Your task to perform on an android device: Open Chrome and go to settings Image 0: 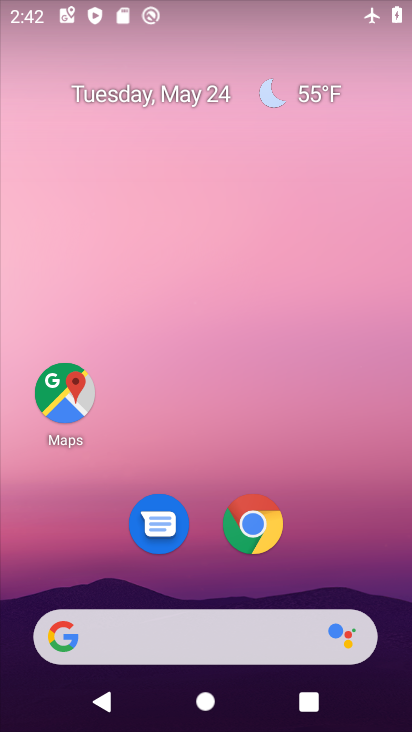
Step 0: click (258, 524)
Your task to perform on an android device: Open Chrome and go to settings Image 1: 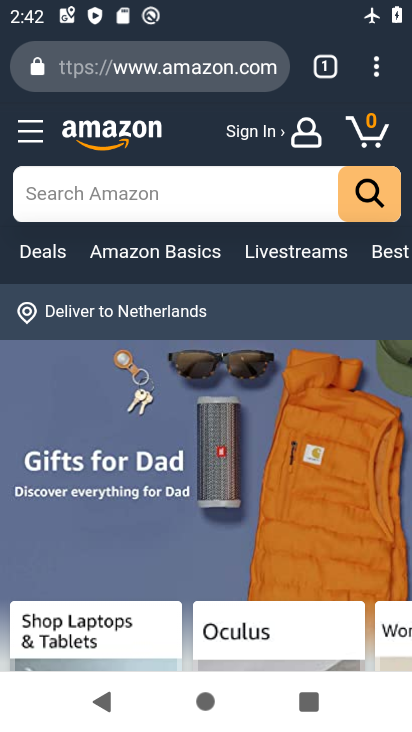
Step 1: click (375, 74)
Your task to perform on an android device: Open Chrome and go to settings Image 2: 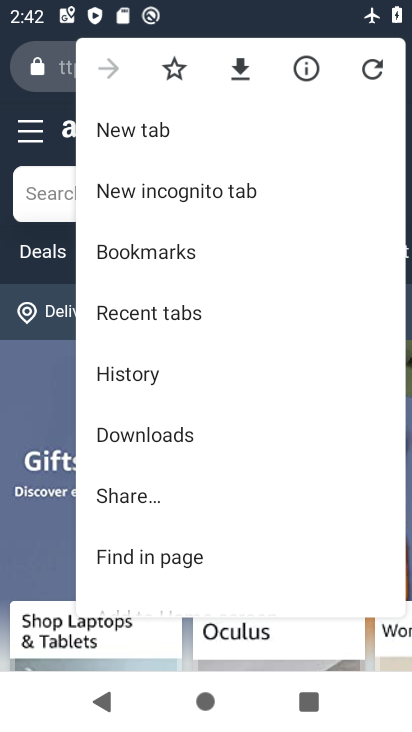
Step 2: drag from (247, 516) to (228, 167)
Your task to perform on an android device: Open Chrome and go to settings Image 3: 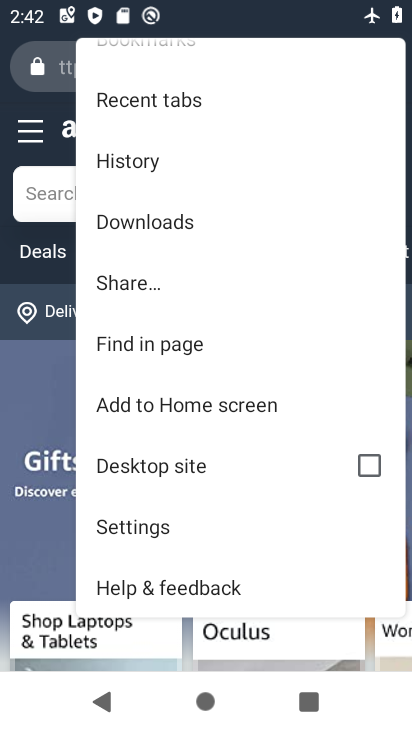
Step 3: click (157, 515)
Your task to perform on an android device: Open Chrome and go to settings Image 4: 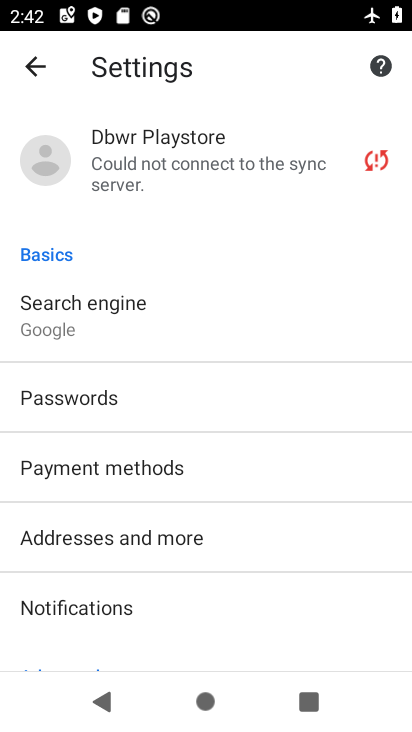
Step 4: task complete